Your task to perform on an android device: Toggle the flashlight Image 0: 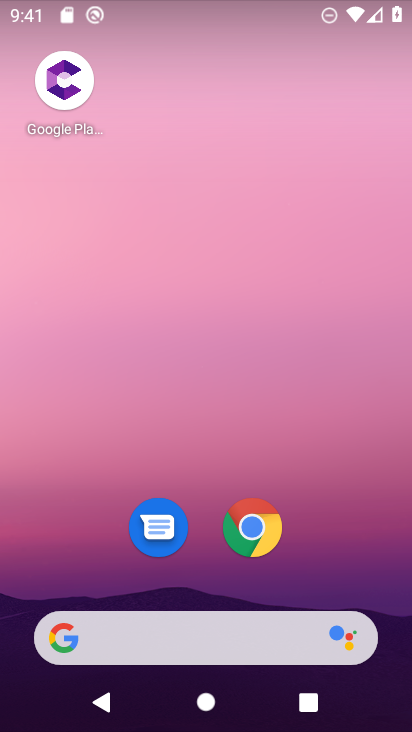
Step 0: drag from (194, 583) to (215, 310)
Your task to perform on an android device: Toggle the flashlight Image 1: 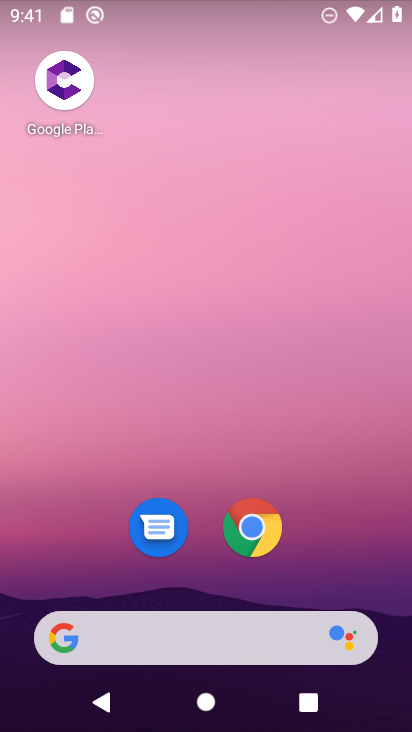
Step 1: drag from (202, 598) to (224, 26)
Your task to perform on an android device: Toggle the flashlight Image 2: 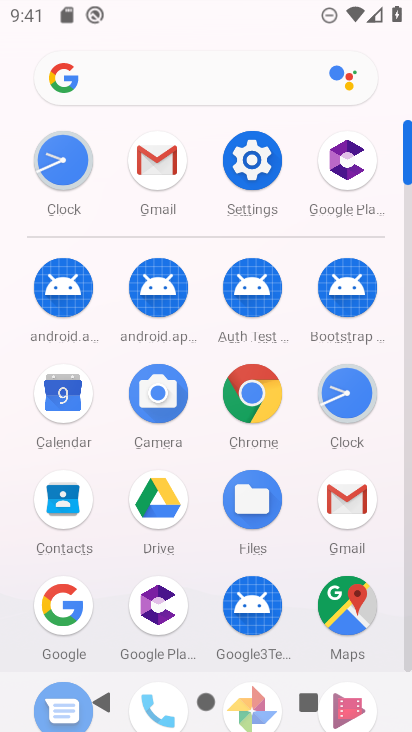
Step 2: click (249, 171)
Your task to perform on an android device: Toggle the flashlight Image 3: 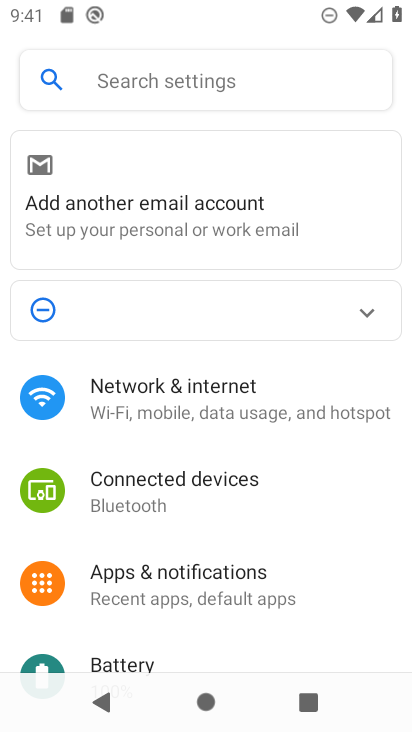
Step 3: click (258, 81)
Your task to perform on an android device: Toggle the flashlight Image 4: 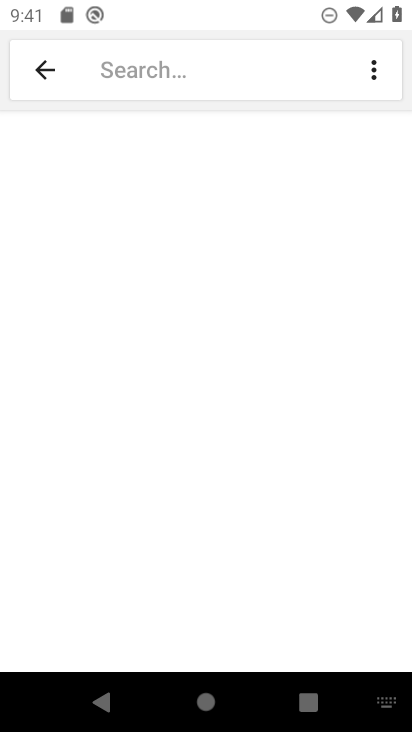
Step 4: type "flashlight"
Your task to perform on an android device: Toggle the flashlight Image 5: 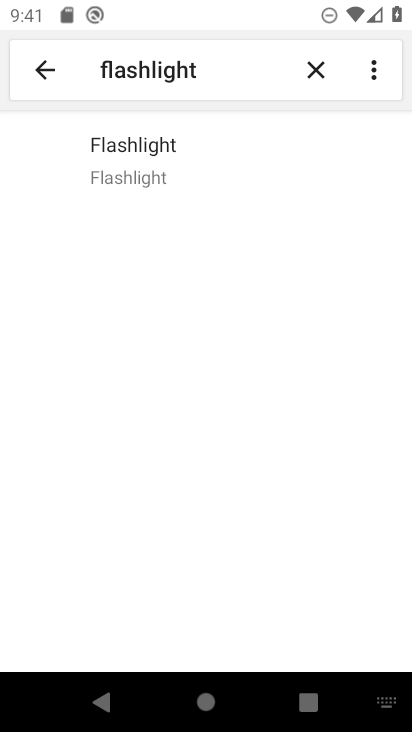
Step 5: click (151, 178)
Your task to perform on an android device: Toggle the flashlight Image 6: 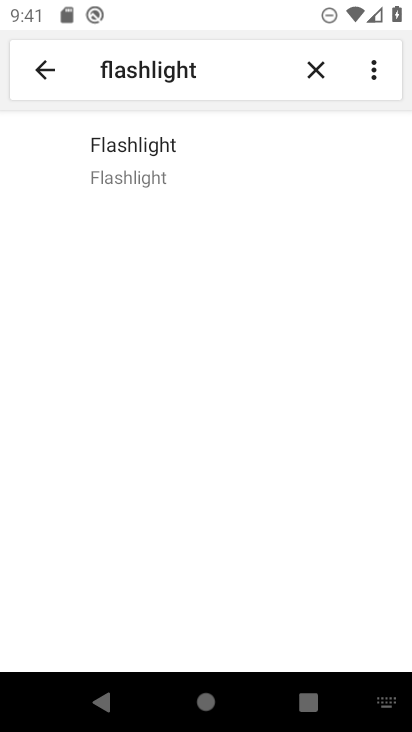
Step 6: task complete